Your task to perform on an android device: change the clock style Image 0: 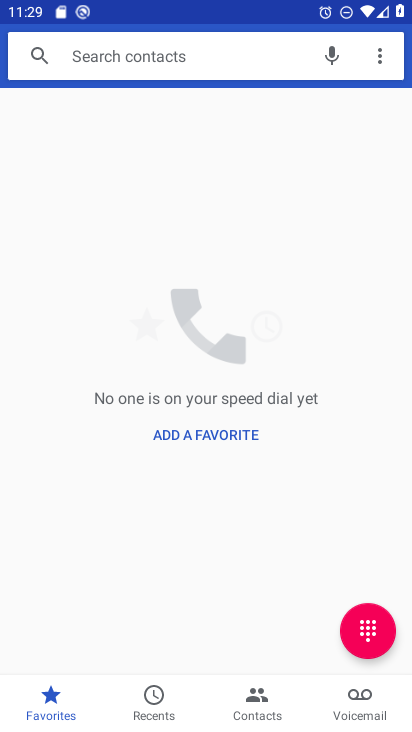
Step 0: press home button
Your task to perform on an android device: change the clock style Image 1: 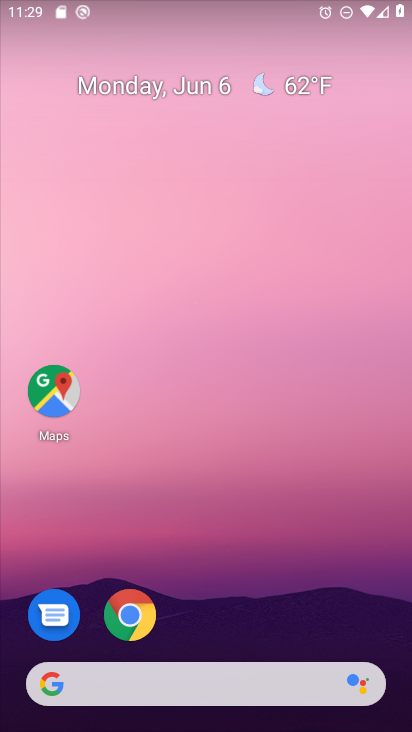
Step 1: drag from (180, 668) to (116, 25)
Your task to perform on an android device: change the clock style Image 2: 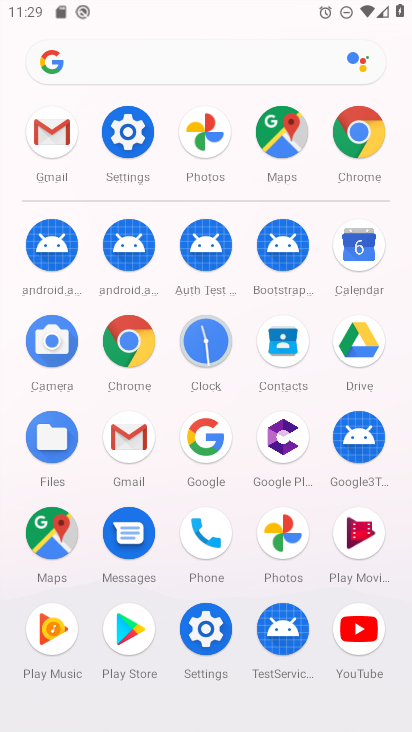
Step 2: click (206, 358)
Your task to perform on an android device: change the clock style Image 3: 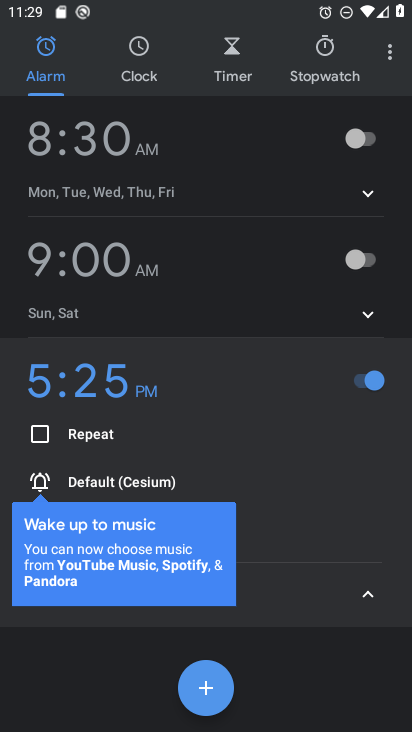
Step 3: click (391, 61)
Your task to perform on an android device: change the clock style Image 4: 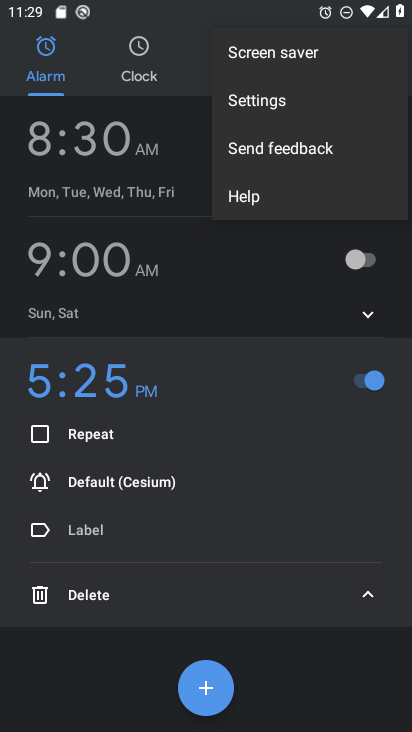
Step 4: click (295, 98)
Your task to perform on an android device: change the clock style Image 5: 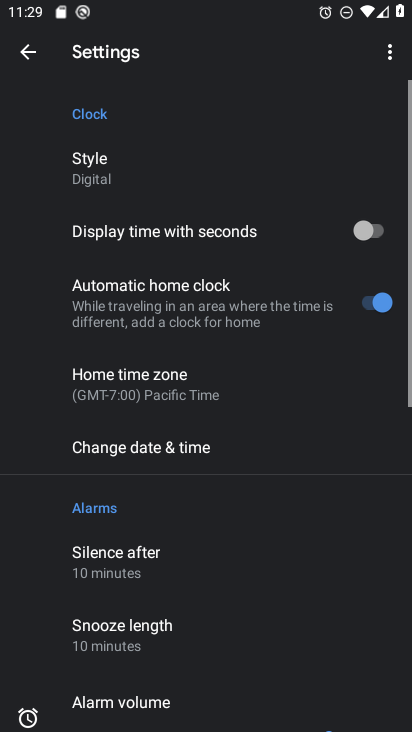
Step 5: click (146, 148)
Your task to perform on an android device: change the clock style Image 6: 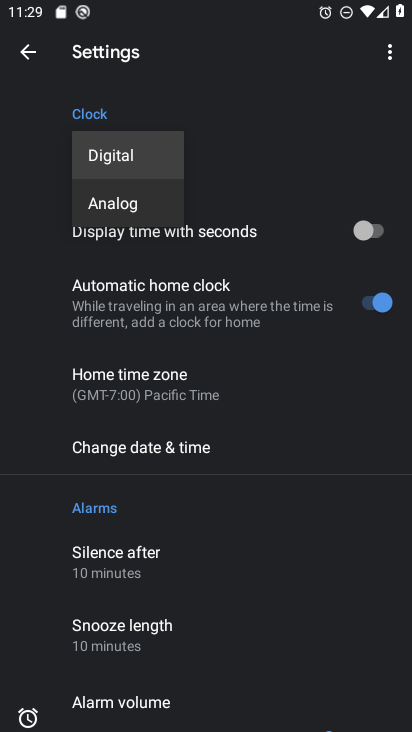
Step 6: click (120, 215)
Your task to perform on an android device: change the clock style Image 7: 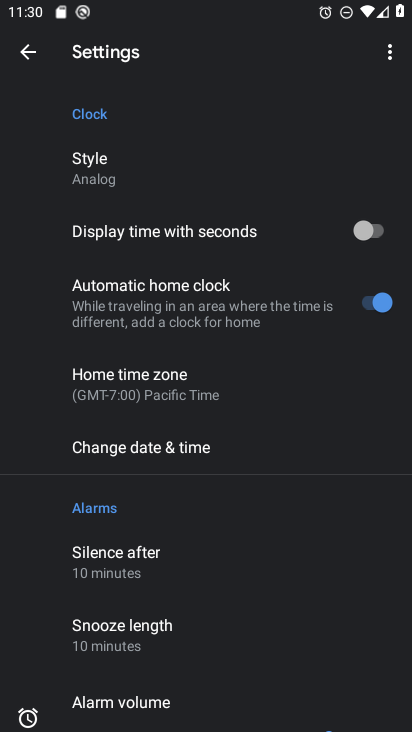
Step 7: task complete